Your task to perform on an android device: Open maps Image 0: 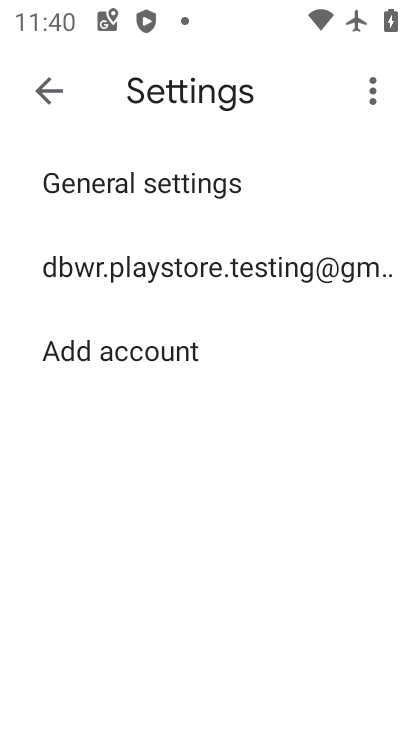
Step 0: press home button
Your task to perform on an android device: Open maps Image 1: 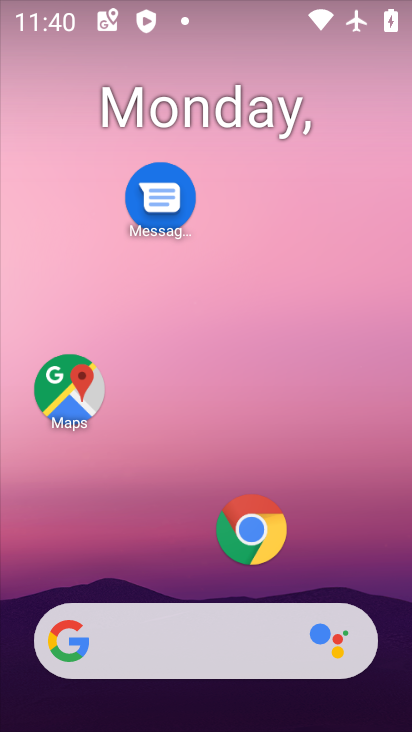
Step 1: drag from (127, 512) to (228, 159)
Your task to perform on an android device: Open maps Image 2: 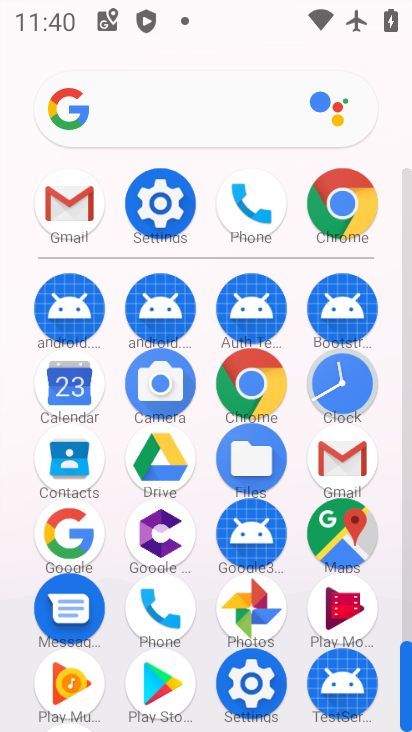
Step 2: click (326, 530)
Your task to perform on an android device: Open maps Image 3: 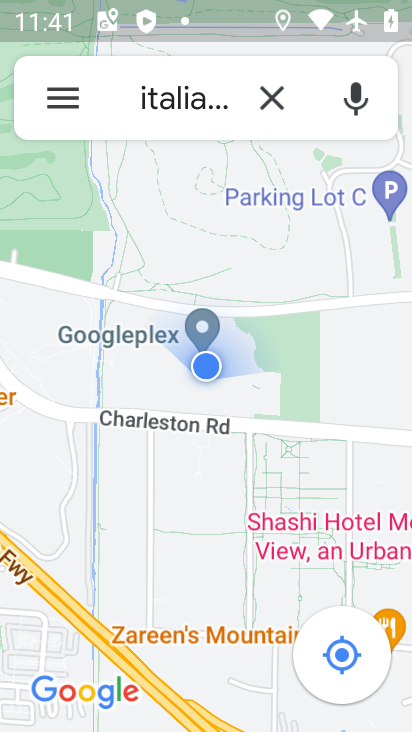
Step 3: task complete